Your task to perform on an android device: set the stopwatch Image 0: 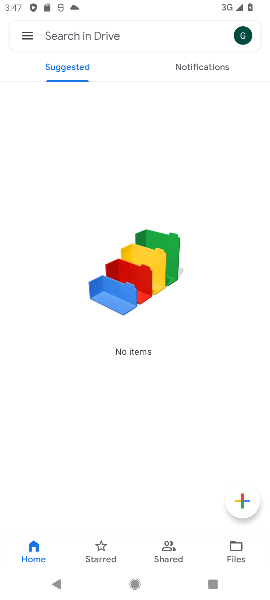
Step 0: press home button
Your task to perform on an android device: set the stopwatch Image 1: 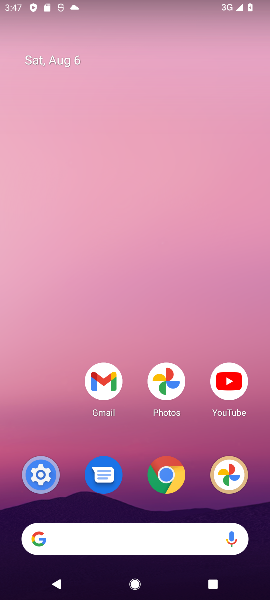
Step 1: drag from (17, 594) to (156, 76)
Your task to perform on an android device: set the stopwatch Image 2: 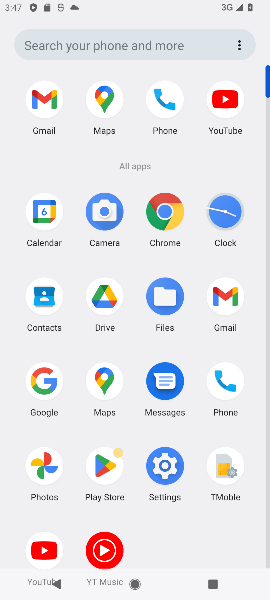
Step 2: click (225, 229)
Your task to perform on an android device: set the stopwatch Image 3: 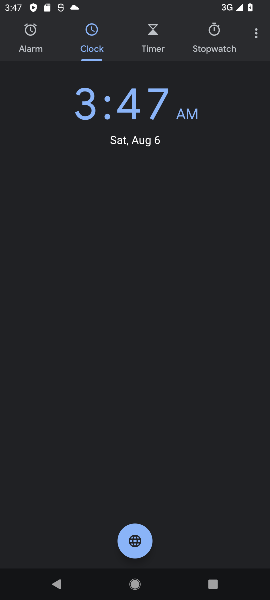
Step 3: click (209, 36)
Your task to perform on an android device: set the stopwatch Image 4: 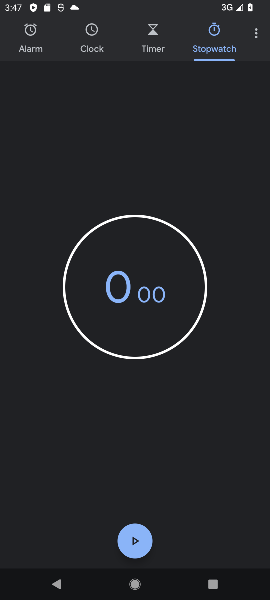
Step 4: click (115, 285)
Your task to perform on an android device: set the stopwatch Image 5: 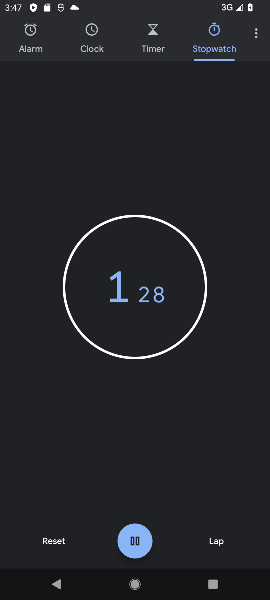
Step 5: click (115, 285)
Your task to perform on an android device: set the stopwatch Image 6: 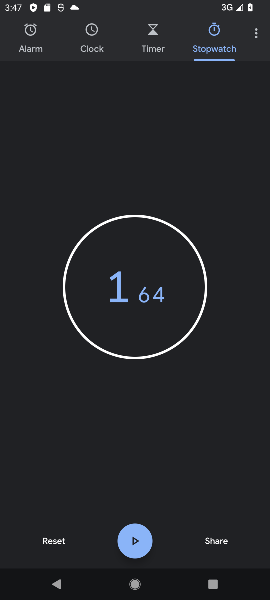
Step 6: task complete